Your task to perform on an android device: find photos in the google photos app Image 0: 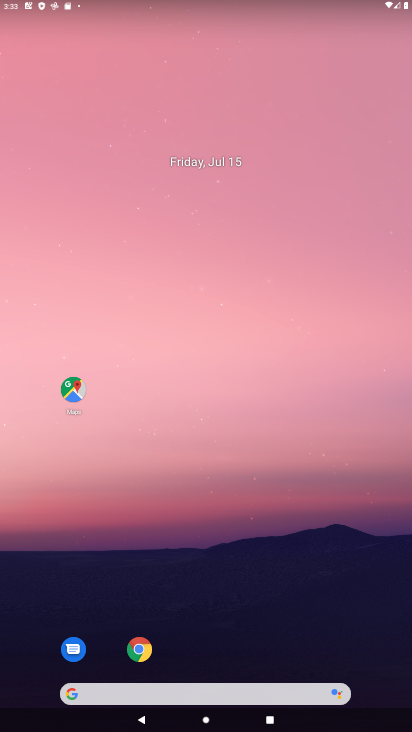
Step 0: drag from (273, 619) to (340, 121)
Your task to perform on an android device: find photos in the google photos app Image 1: 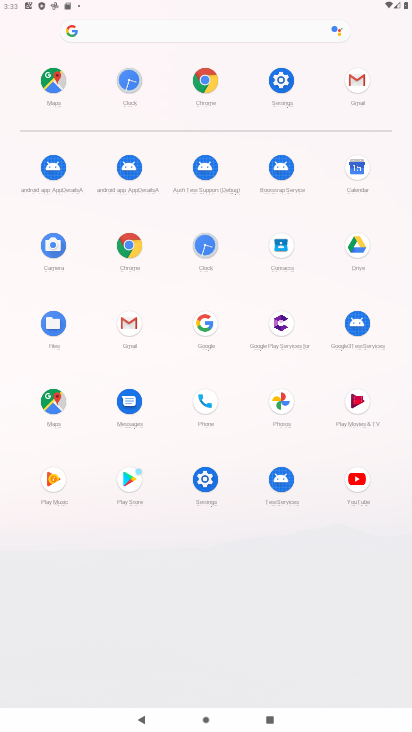
Step 1: click (284, 402)
Your task to perform on an android device: find photos in the google photos app Image 2: 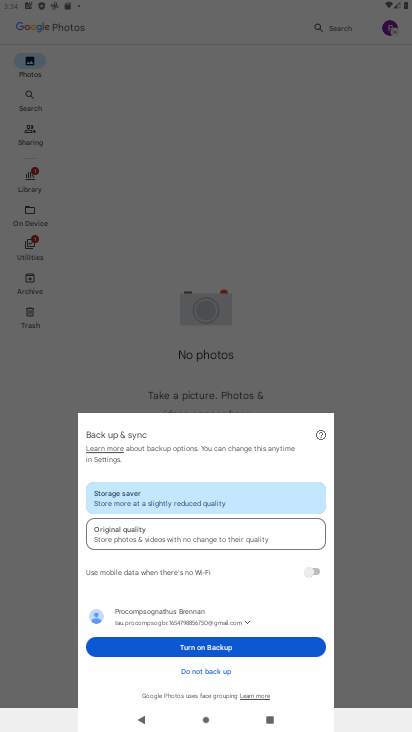
Step 2: click (222, 653)
Your task to perform on an android device: find photos in the google photos app Image 3: 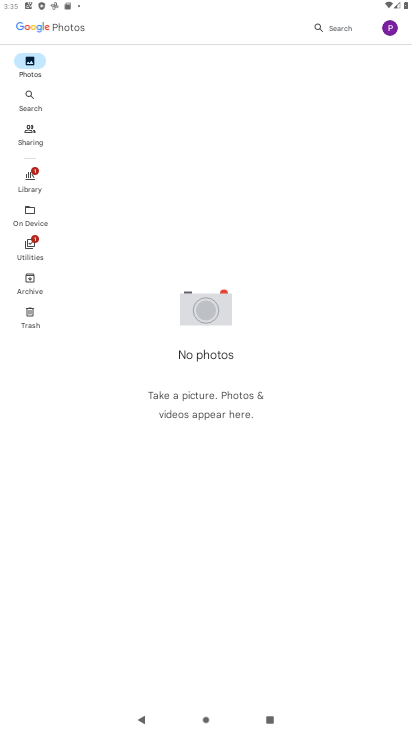
Step 3: task complete